Your task to perform on an android device: set default search engine in the chrome app Image 0: 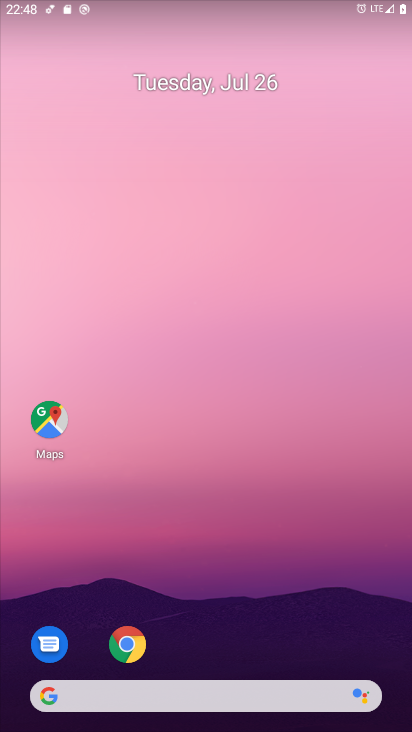
Step 0: click (125, 654)
Your task to perform on an android device: set default search engine in the chrome app Image 1: 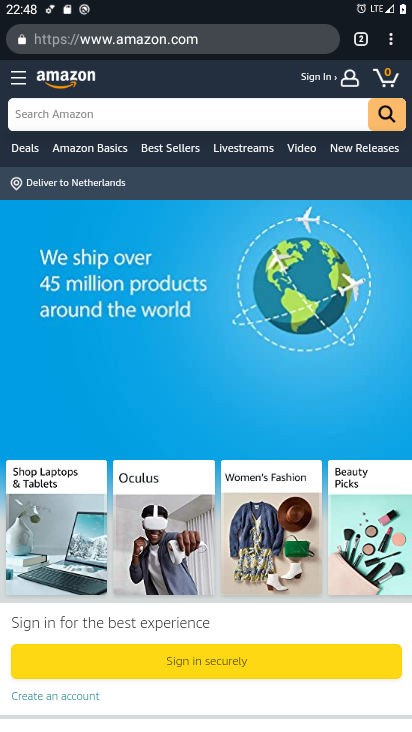
Step 1: click (388, 39)
Your task to perform on an android device: set default search engine in the chrome app Image 2: 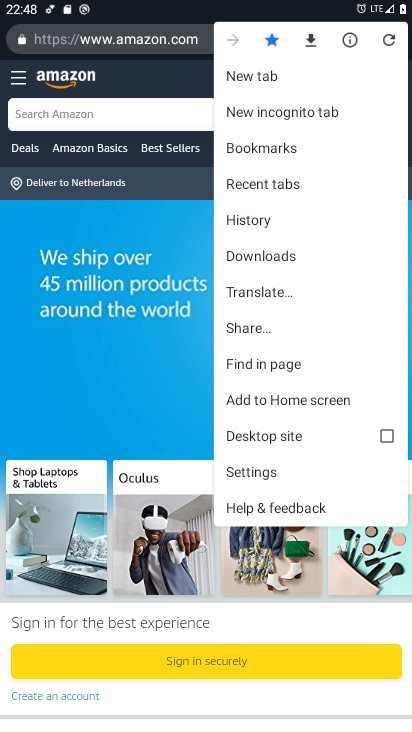
Step 2: click (258, 476)
Your task to perform on an android device: set default search engine in the chrome app Image 3: 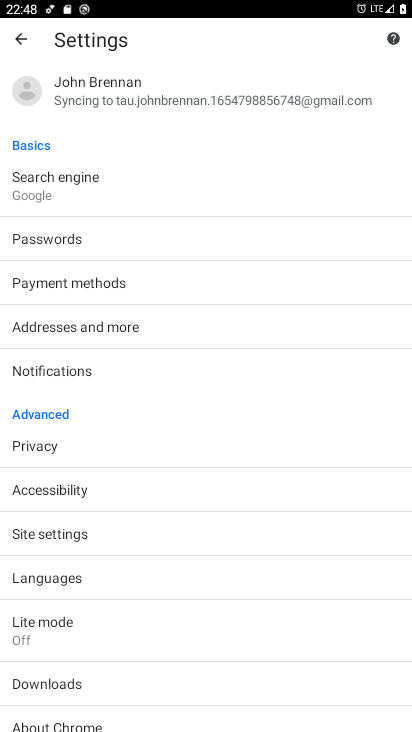
Step 3: click (63, 182)
Your task to perform on an android device: set default search engine in the chrome app Image 4: 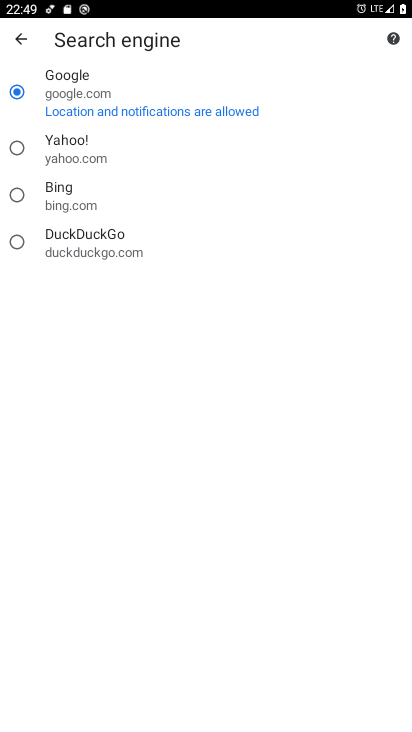
Step 4: task complete